Your task to perform on an android device: all mails in gmail Image 0: 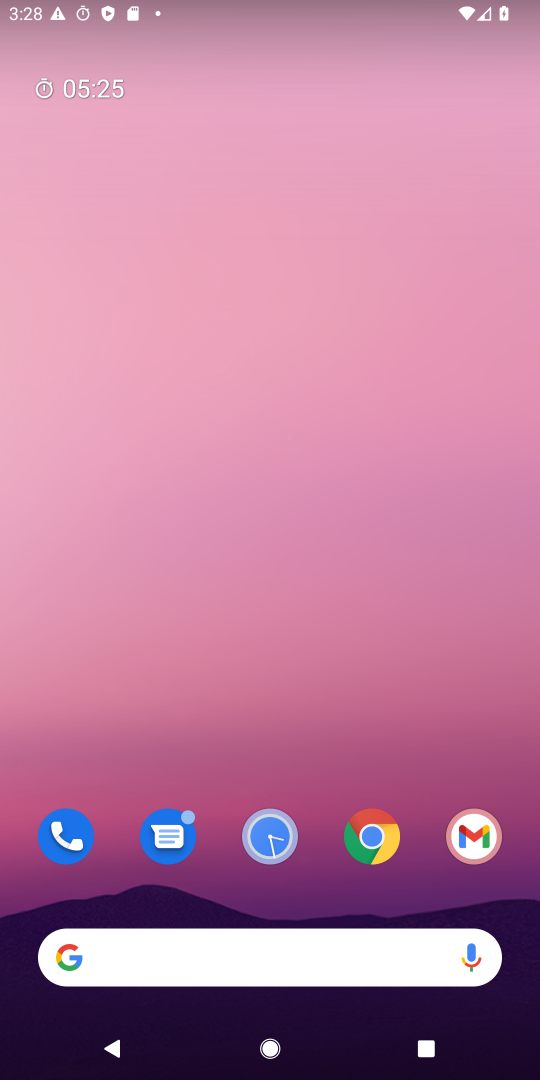
Step 0: click (469, 842)
Your task to perform on an android device: all mails in gmail Image 1: 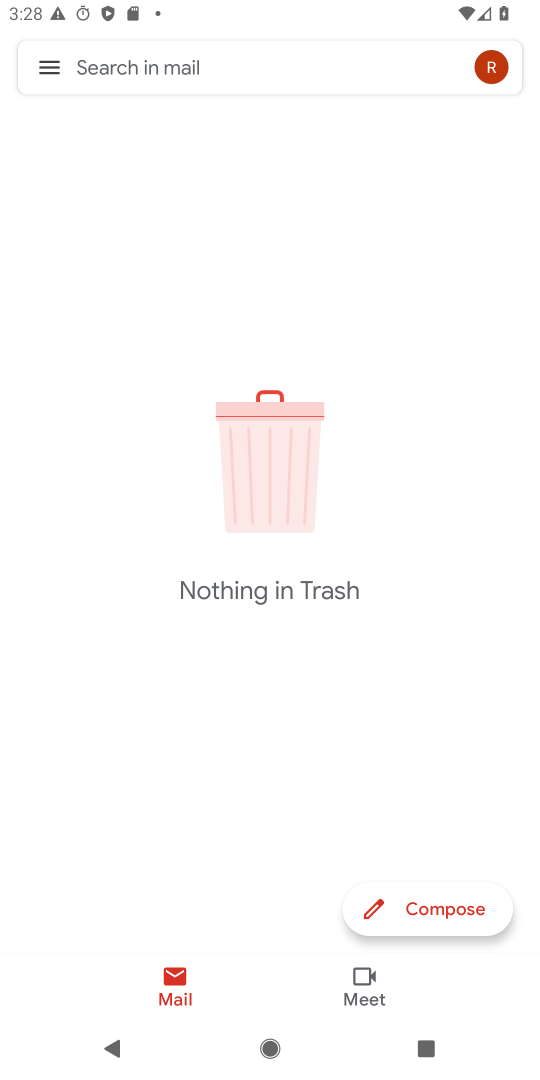
Step 1: click (45, 61)
Your task to perform on an android device: all mails in gmail Image 2: 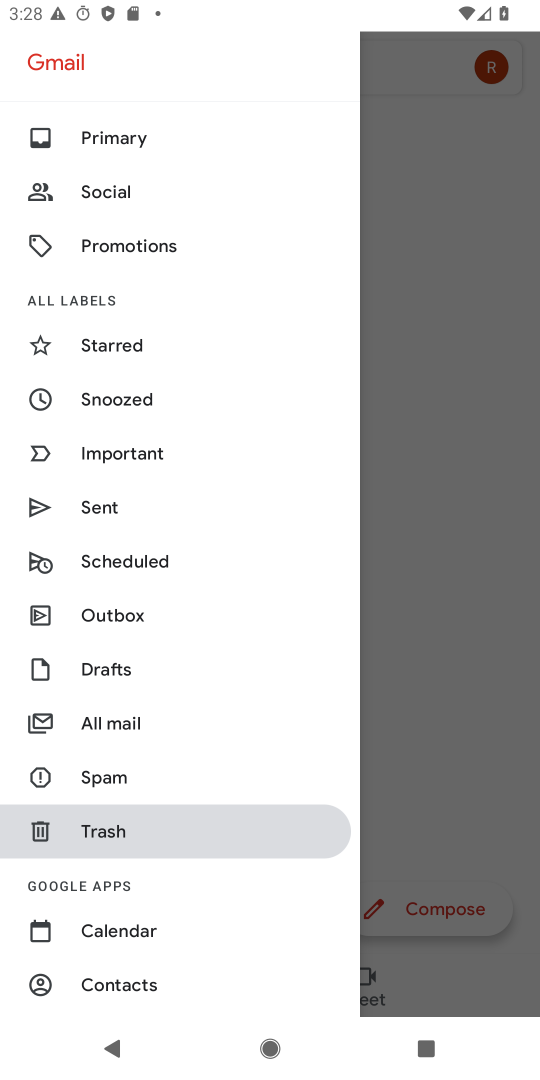
Step 2: click (133, 715)
Your task to perform on an android device: all mails in gmail Image 3: 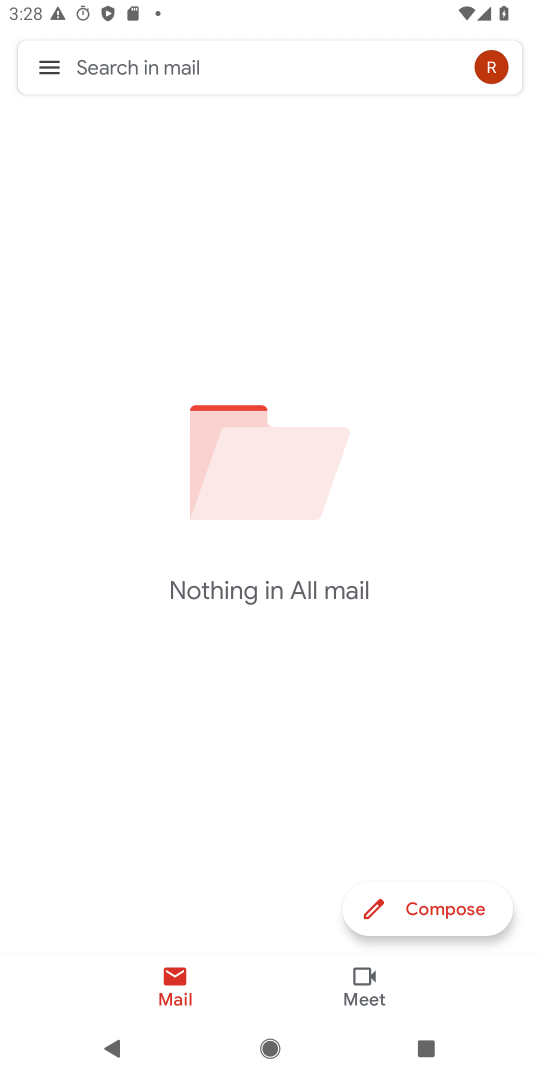
Step 3: task complete